Your task to perform on an android device: Search for seafood restaurants on Google Maps Image 0: 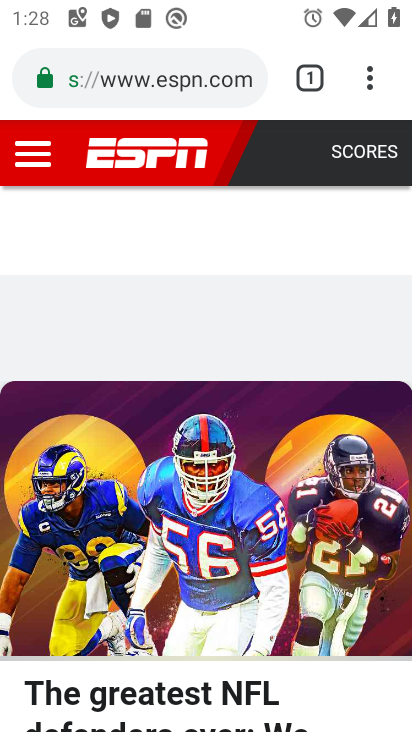
Step 0: press home button
Your task to perform on an android device: Search for seafood restaurants on Google Maps Image 1: 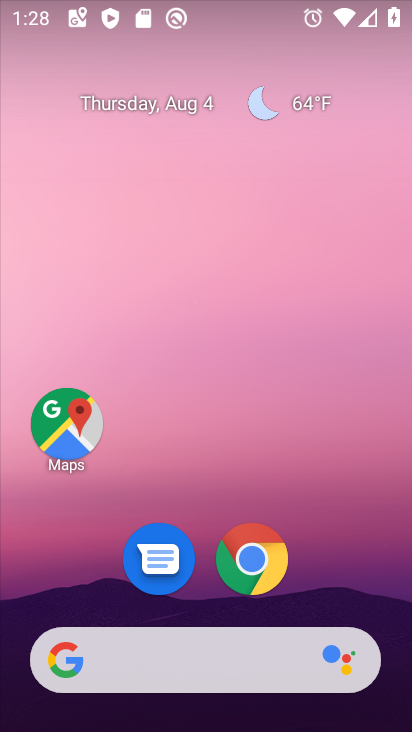
Step 1: click (68, 426)
Your task to perform on an android device: Search for seafood restaurants on Google Maps Image 2: 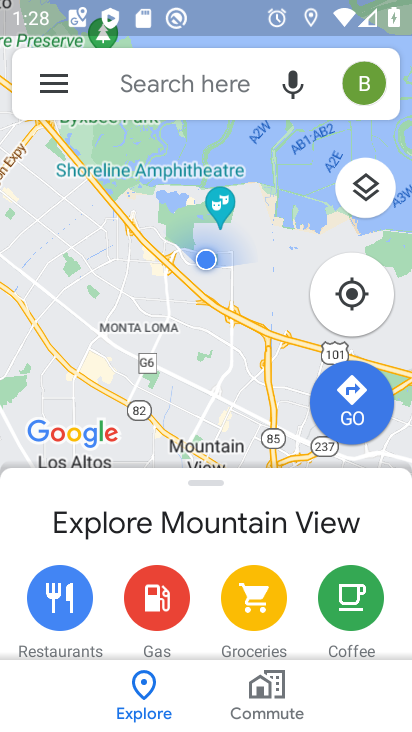
Step 2: click (213, 103)
Your task to perform on an android device: Search for seafood restaurants on Google Maps Image 3: 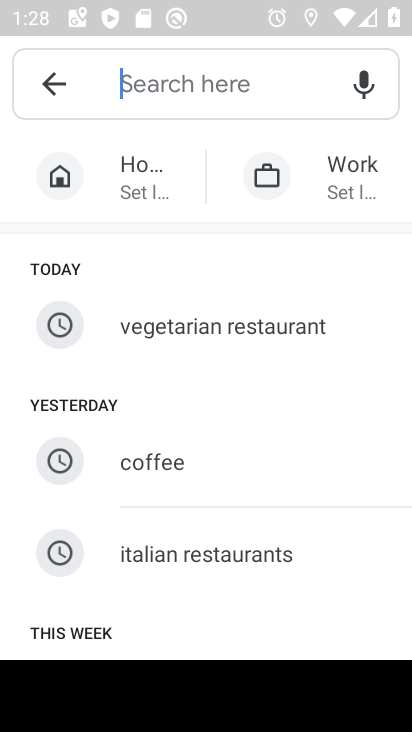
Step 3: type "seafood restaurants"
Your task to perform on an android device: Search for seafood restaurants on Google Maps Image 4: 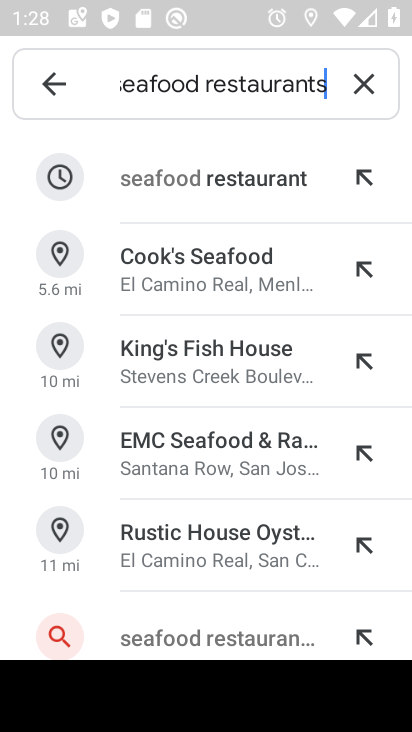
Step 4: click (248, 180)
Your task to perform on an android device: Search for seafood restaurants on Google Maps Image 5: 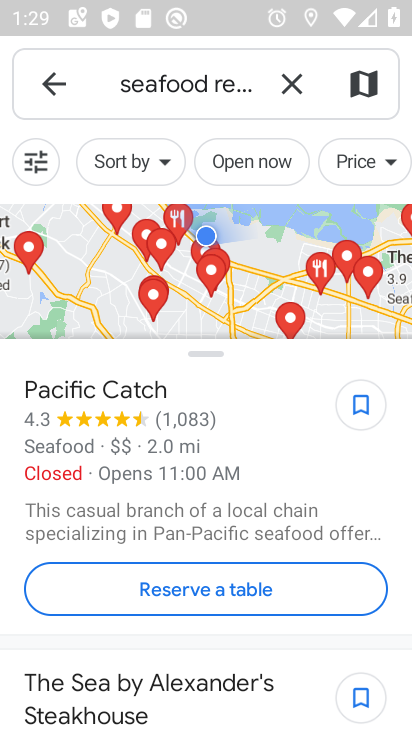
Step 5: task complete